Your task to perform on an android device: Open internet settings Image 0: 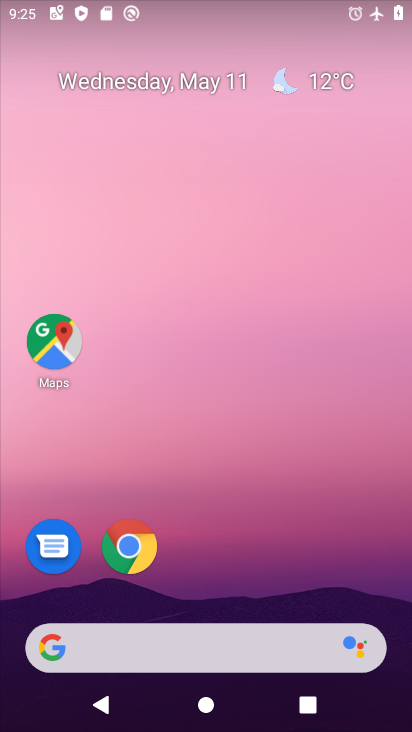
Step 0: drag from (399, 620) to (310, 15)
Your task to perform on an android device: Open internet settings Image 1: 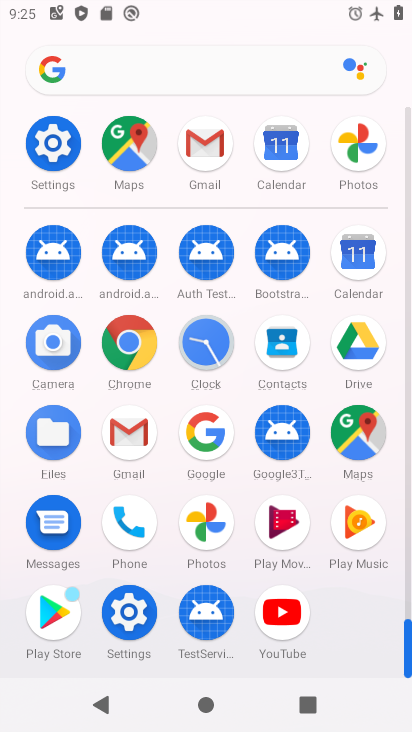
Step 1: click (127, 607)
Your task to perform on an android device: Open internet settings Image 2: 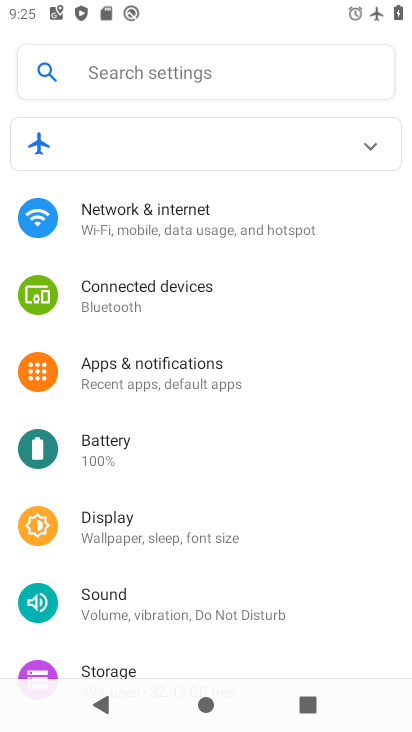
Step 2: click (135, 214)
Your task to perform on an android device: Open internet settings Image 3: 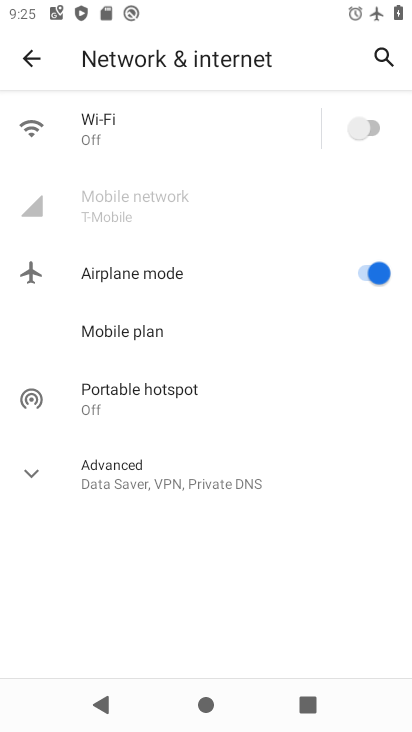
Step 3: click (29, 474)
Your task to perform on an android device: Open internet settings Image 4: 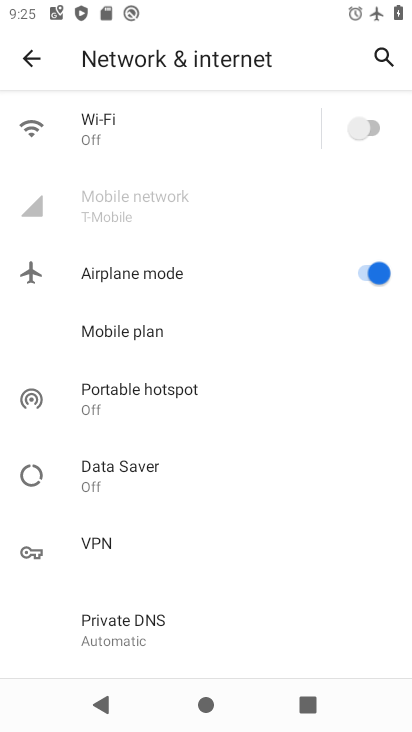
Step 4: task complete